Your task to perform on an android device: Search for vegetarian restaurants on Maps Image 0: 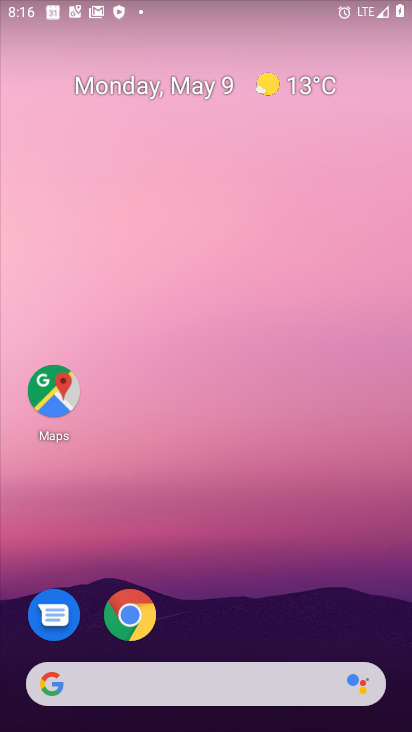
Step 0: click (51, 390)
Your task to perform on an android device: Search for vegetarian restaurants on Maps Image 1: 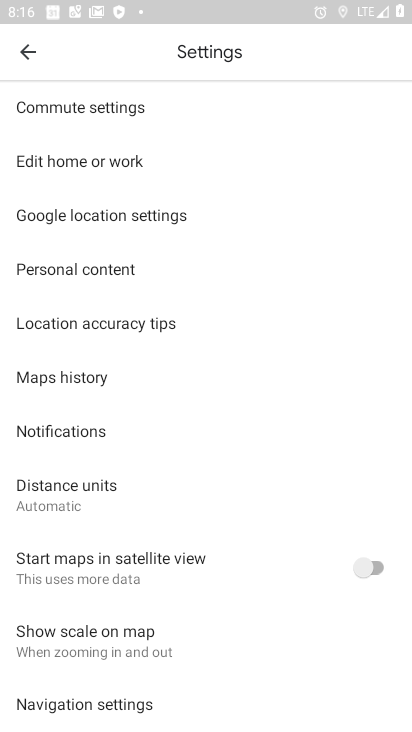
Step 1: press home button
Your task to perform on an android device: Search for vegetarian restaurants on Maps Image 2: 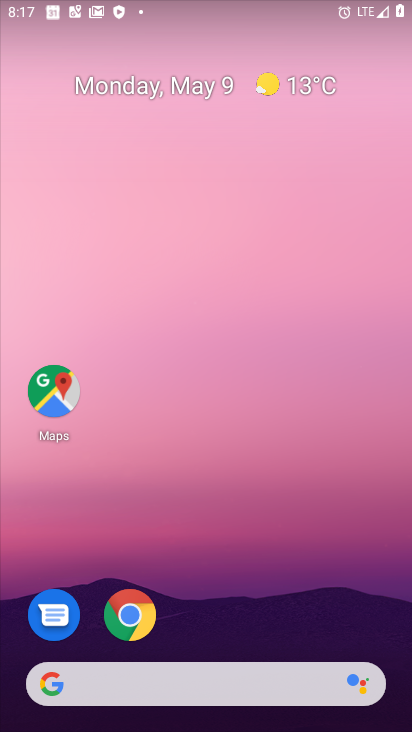
Step 2: click (69, 395)
Your task to perform on an android device: Search for vegetarian restaurants on Maps Image 3: 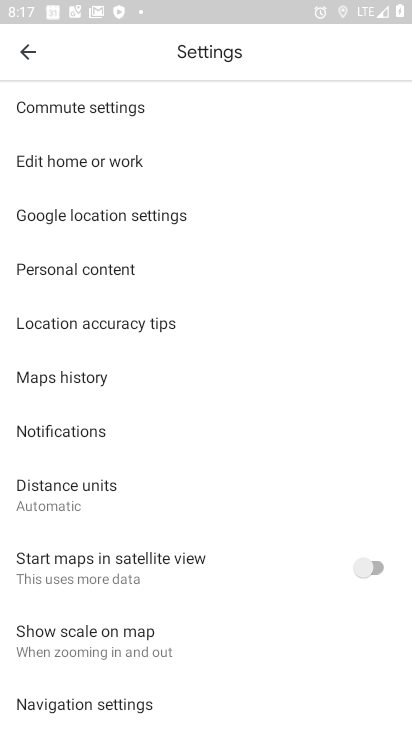
Step 3: click (47, 51)
Your task to perform on an android device: Search for vegetarian restaurants on Maps Image 4: 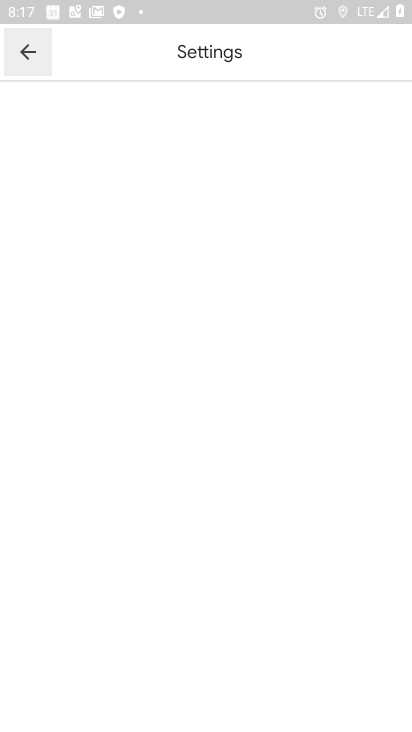
Step 4: click (47, 51)
Your task to perform on an android device: Search for vegetarian restaurants on Maps Image 5: 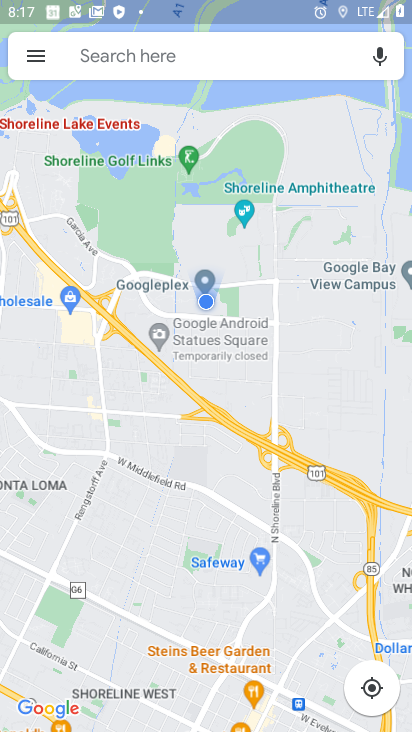
Step 5: click (113, 58)
Your task to perform on an android device: Search for vegetarian restaurants on Maps Image 6: 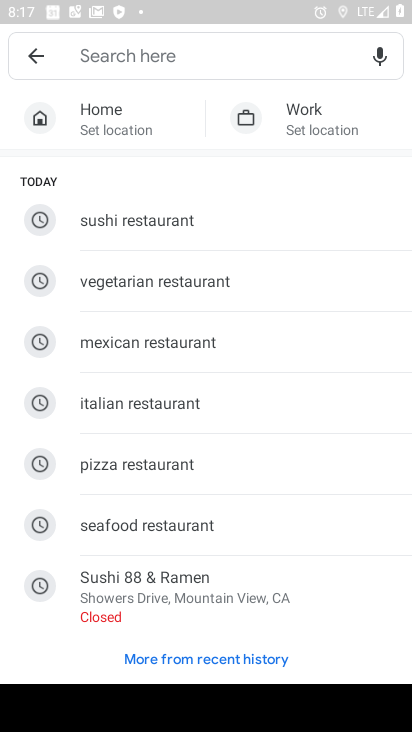
Step 6: click (157, 287)
Your task to perform on an android device: Search for vegetarian restaurants on Maps Image 7: 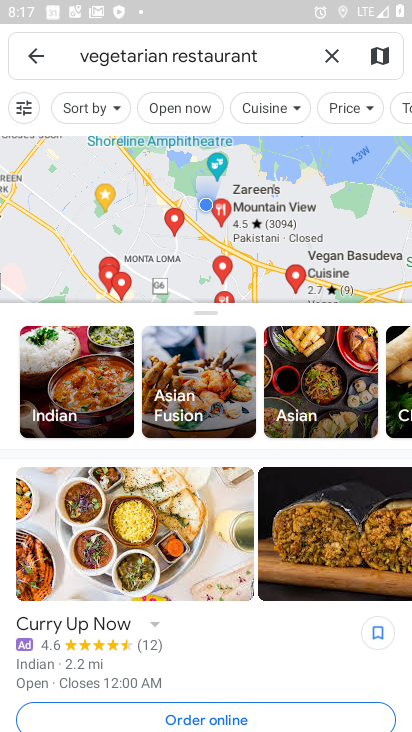
Step 7: task complete